Your task to perform on an android device: set default search engine in the chrome app Image 0: 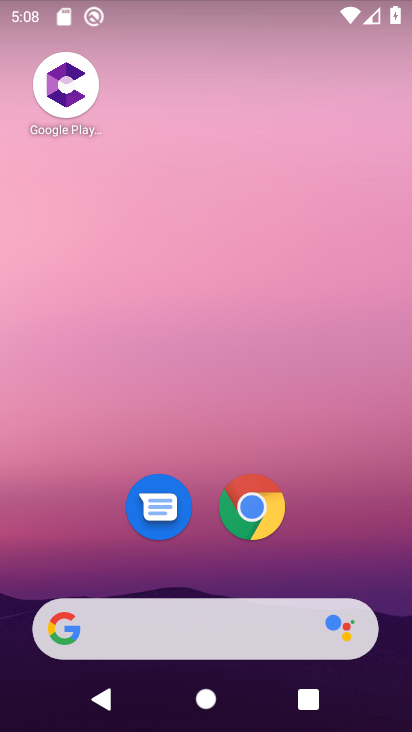
Step 0: drag from (304, 591) to (309, 15)
Your task to perform on an android device: set default search engine in the chrome app Image 1: 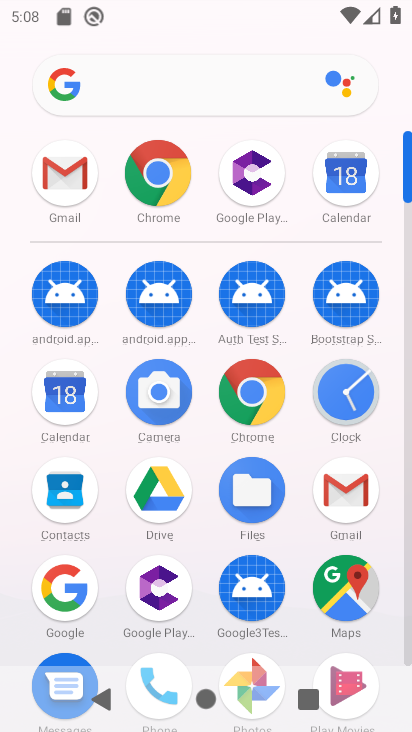
Step 1: click (261, 411)
Your task to perform on an android device: set default search engine in the chrome app Image 2: 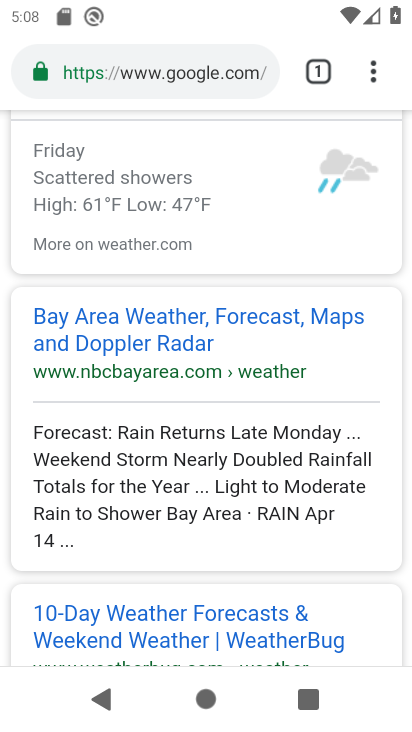
Step 2: click (382, 78)
Your task to perform on an android device: set default search engine in the chrome app Image 3: 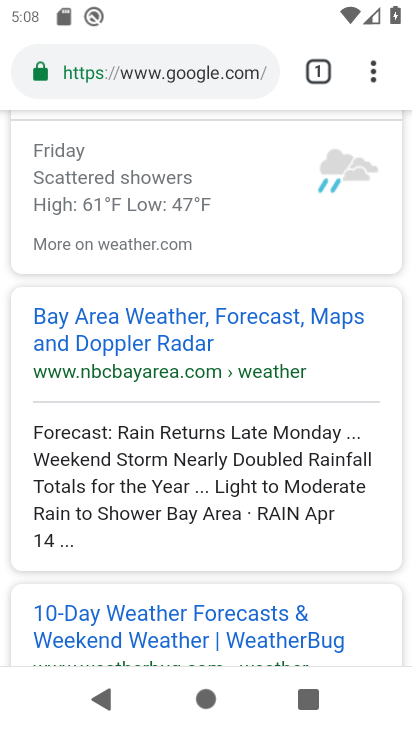
Step 3: click (380, 68)
Your task to perform on an android device: set default search engine in the chrome app Image 4: 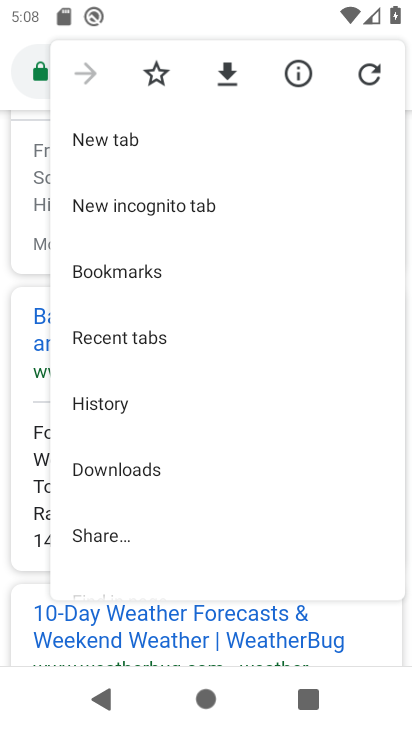
Step 4: drag from (215, 552) to (232, 141)
Your task to perform on an android device: set default search engine in the chrome app Image 5: 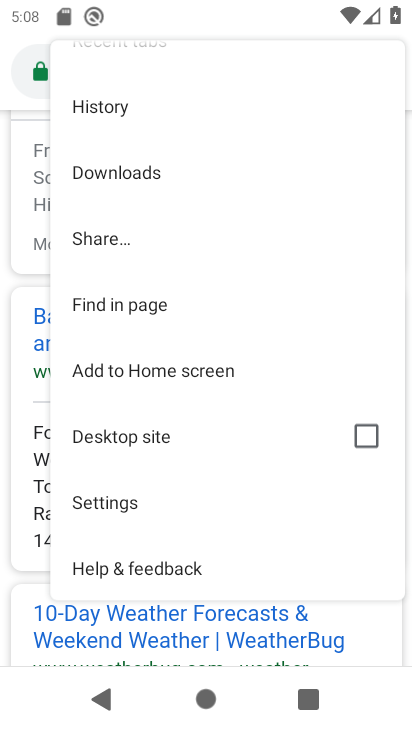
Step 5: click (132, 499)
Your task to perform on an android device: set default search engine in the chrome app Image 6: 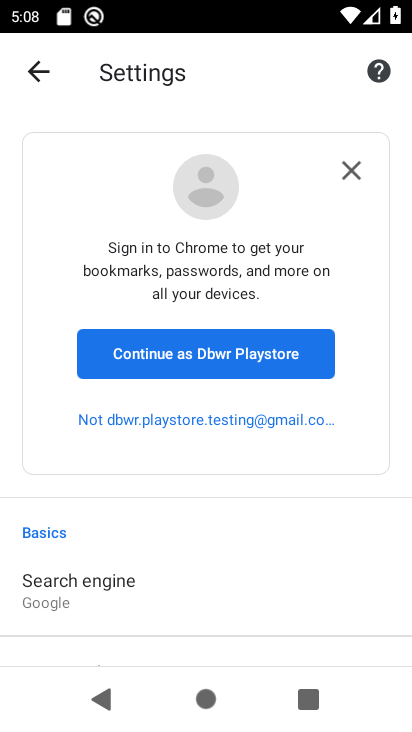
Step 6: click (212, 588)
Your task to perform on an android device: set default search engine in the chrome app Image 7: 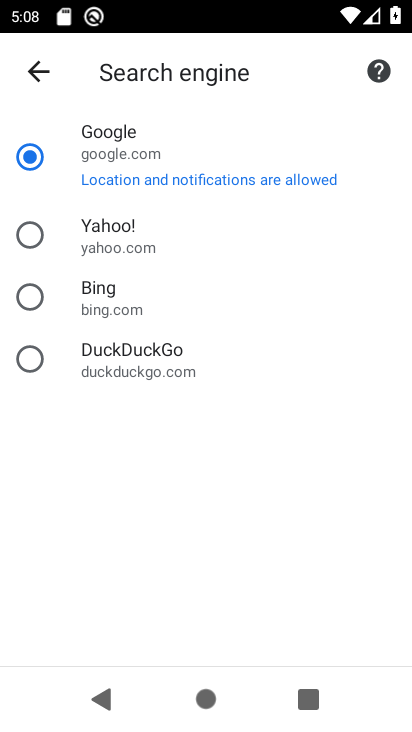
Step 7: task complete